Your task to perform on an android device: show emergency info Image 0: 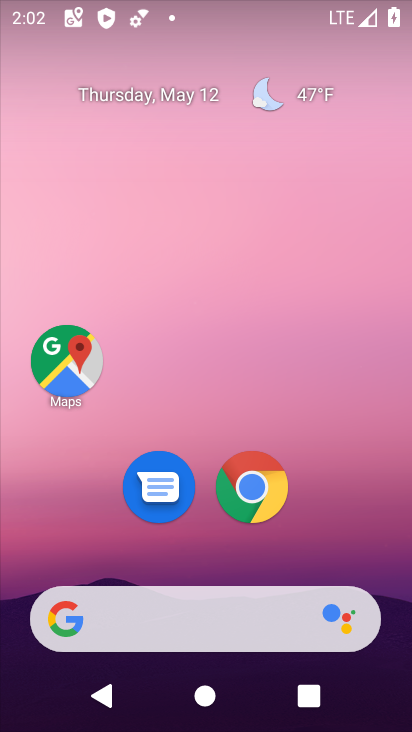
Step 0: drag from (334, 440) to (265, 39)
Your task to perform on an android device: show emergency info Image 1: 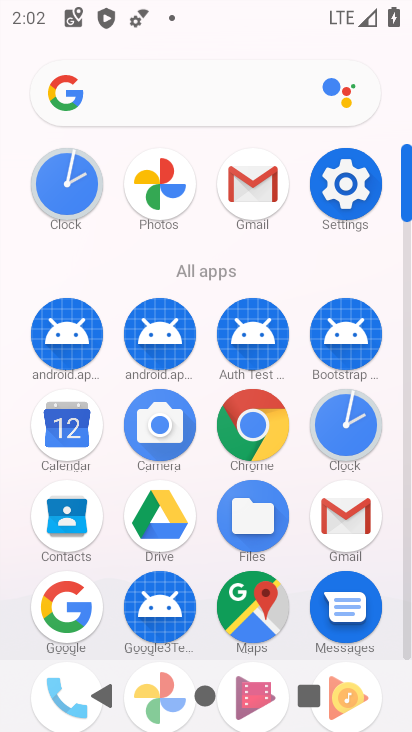
Step 1: click (340, 201)
Your task to perform on an android device: show emergency info Image 2: 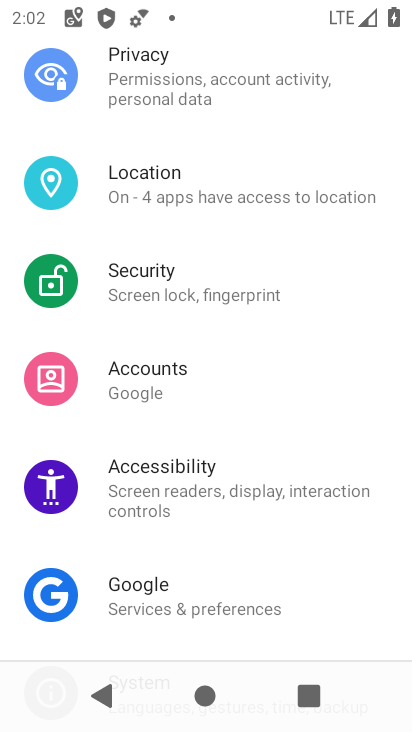
Step 2: drag from (197, 516) to (257, 2)
Your task to perform on an android device: show emergency info Image 3: 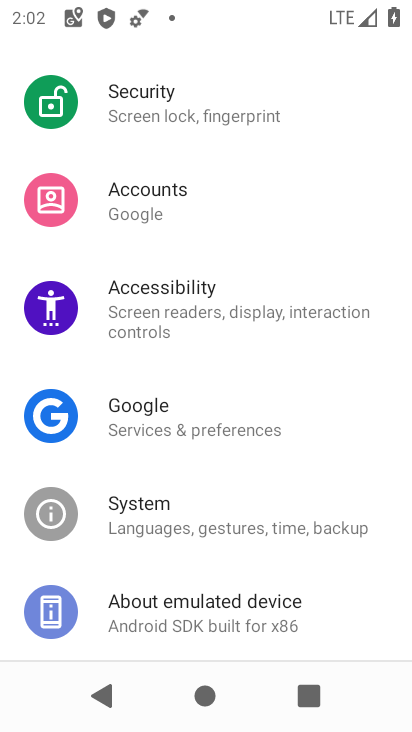
Step 3: click (179, 601)
Your task to perform on an android device: show emergency info Image 4: 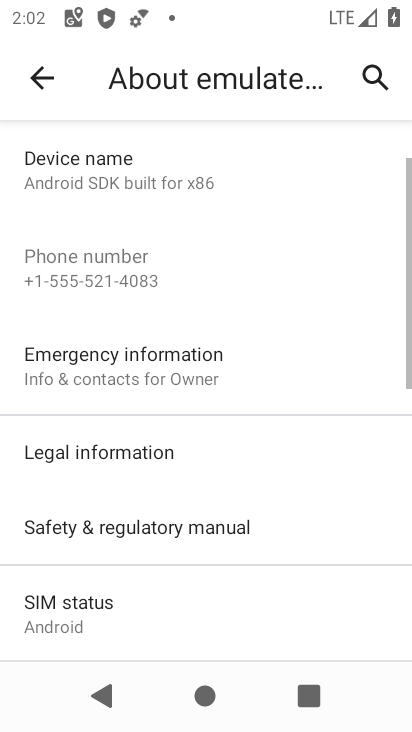
Step 4: click (164, 379)
Your task to perform on an android device: show emergency info Image 5: 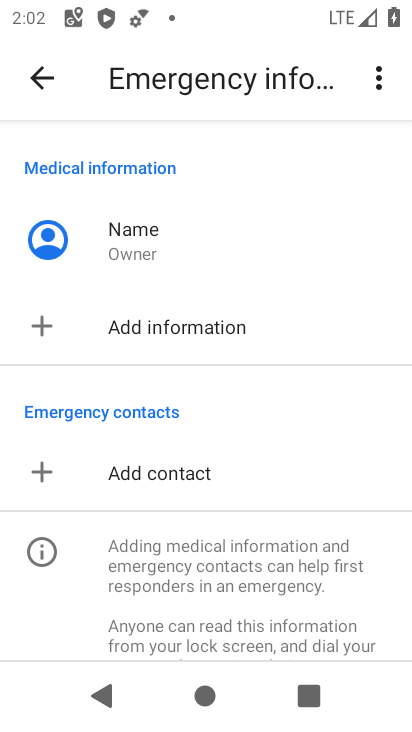
Step 5: task complete